Your task to perform on an android device: toggle sleep mode Image 0: 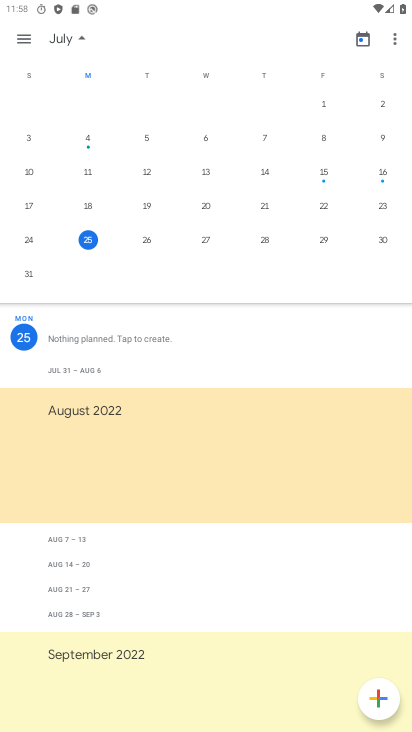
Step 0: press home button
Your task to perform on an android device: toggle sleep mode Image 1: 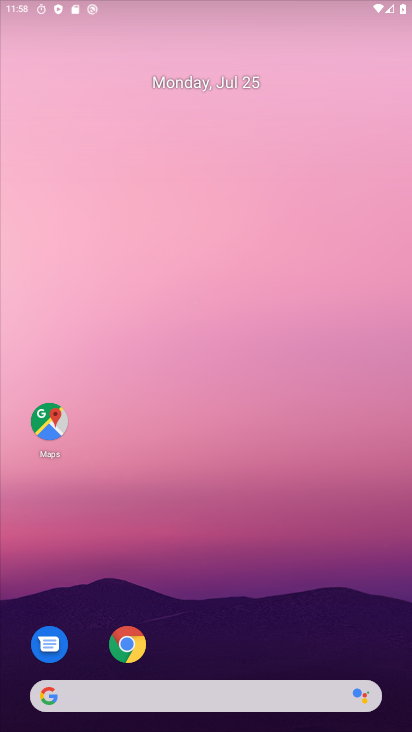
Step 1: drag from (180, 610) to (289, 47)
Your task to perform on an android device: toggle sleep mode Image 2: 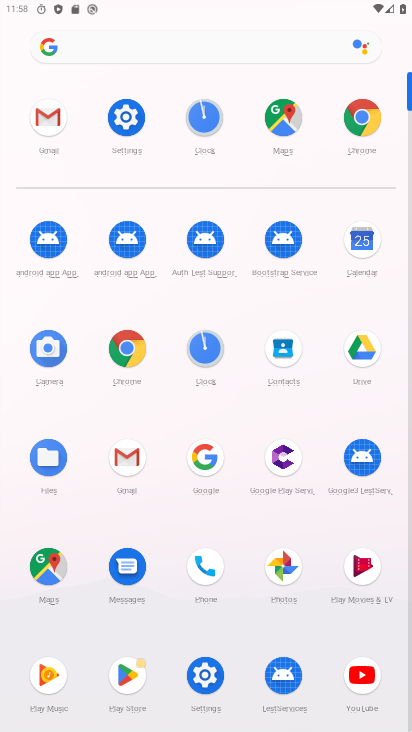
Step 2: click (123, 119)
Your task to perform on an android device: toggle sleep mode Image 3: 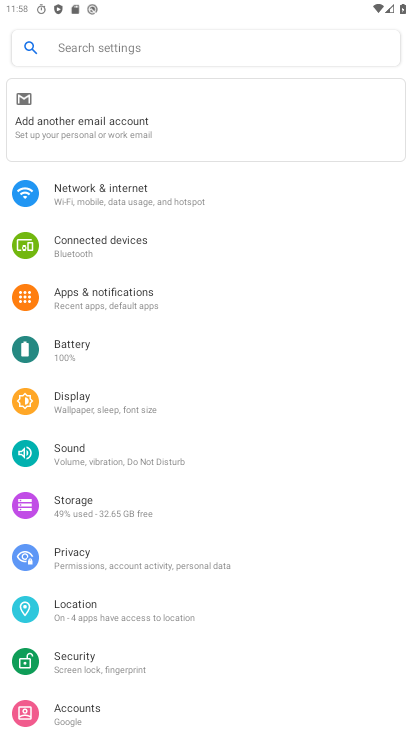
Step 3: click (92, 407)
Your task to perform on an android device: toggle sleep mode Image 4: 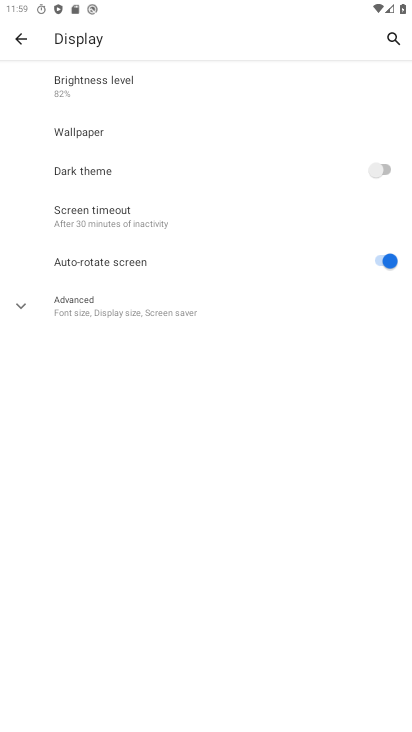
Step 4: click (96, 220)
Your task to perform on an android device: toggle sleep mode Image 5: 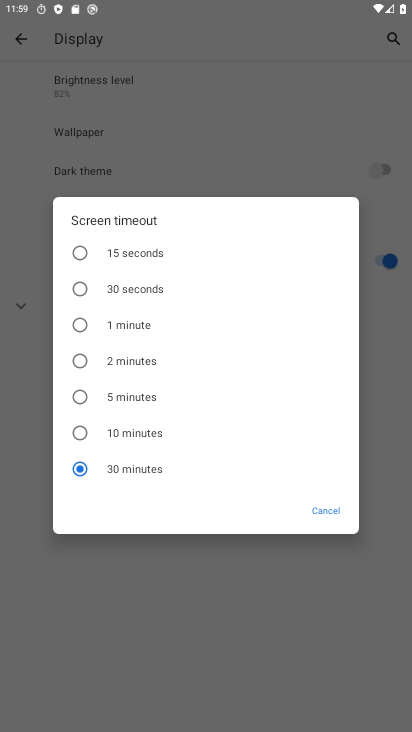
Step 5: click (116, 358)
Your task to perform on an android device: toggle sleep mode Image 6: 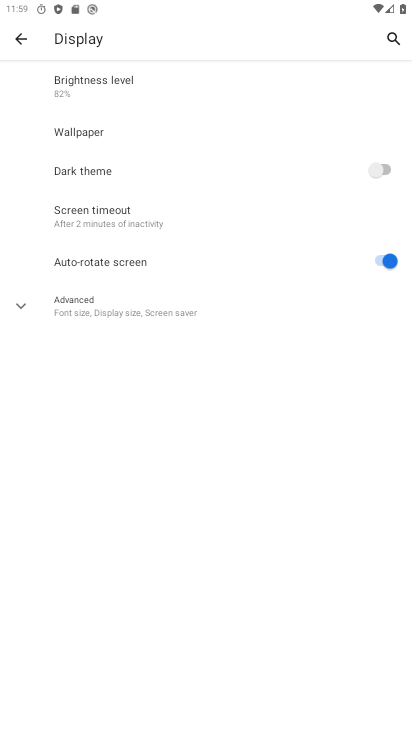
Step 6: task complete